Your task to perform on an android device: find which apps use the phone's location Image 0: 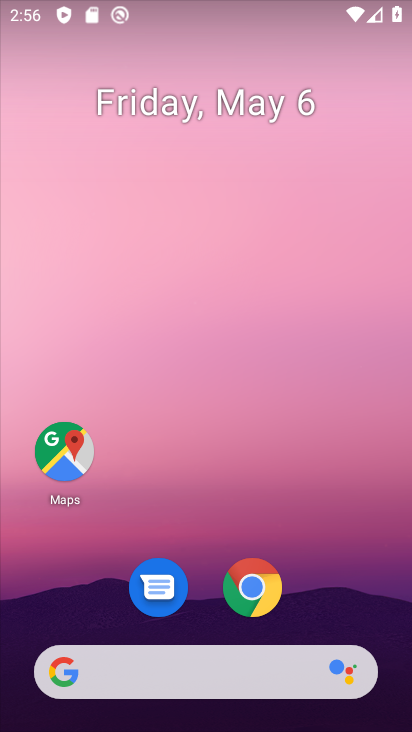
Step 0: drag from (317, 515) to (319, 58)
Your task to perform on an android device: find which apps use the phone's location Image 1: 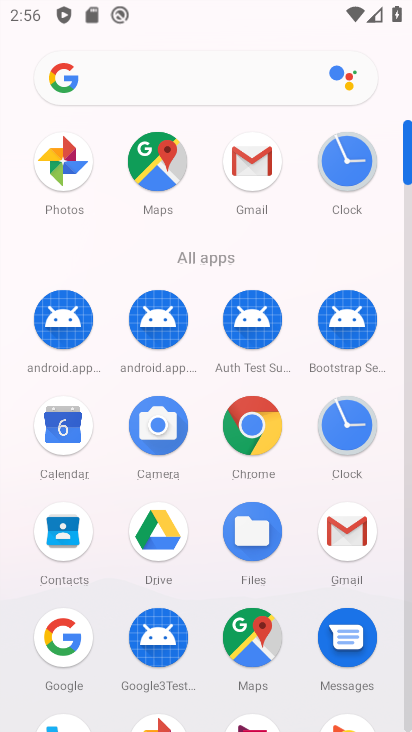
Step 1: drag from (204, 485) to (217, 136)
Your task to perform on an android device: find which apps use the phone's location Image 2: 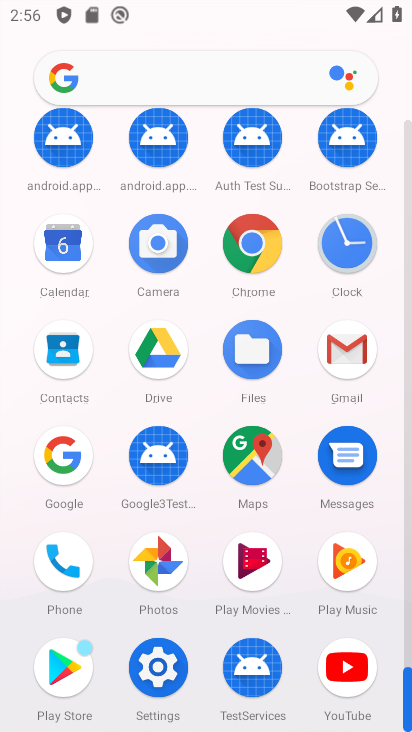
Step 2: click (157, 654)
Your task to perform on an android device: find which apps use the phone's location Image 3: 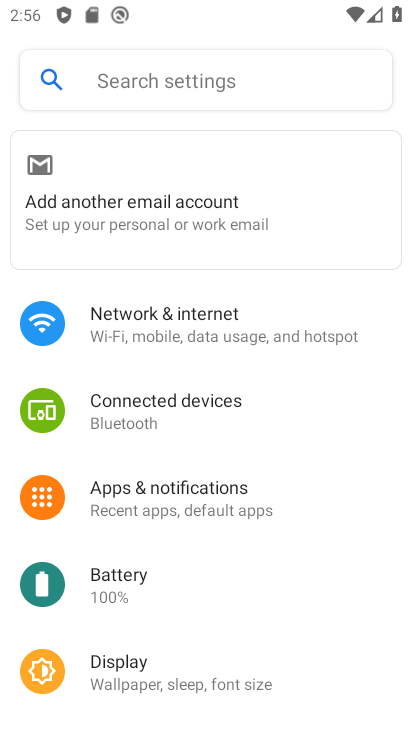
Step 3: drag from (189, 603) to (232, 160)
Your task to perform on an android device: find which apps use the phone's location Image 4: 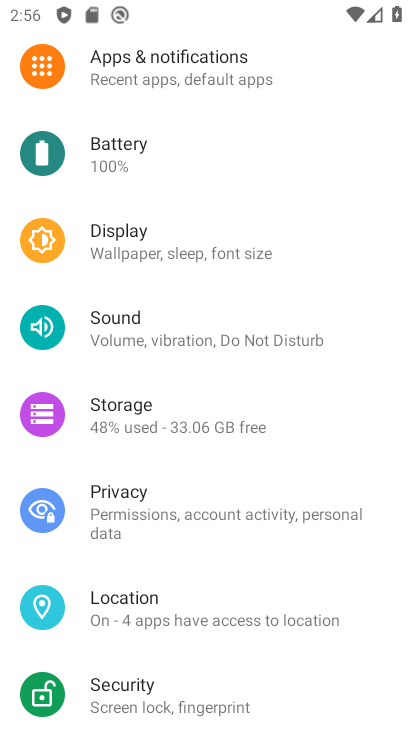
Step 4: click (203, 604)
Your task to perform on an android device: find which apps use the phone's location Image 5: 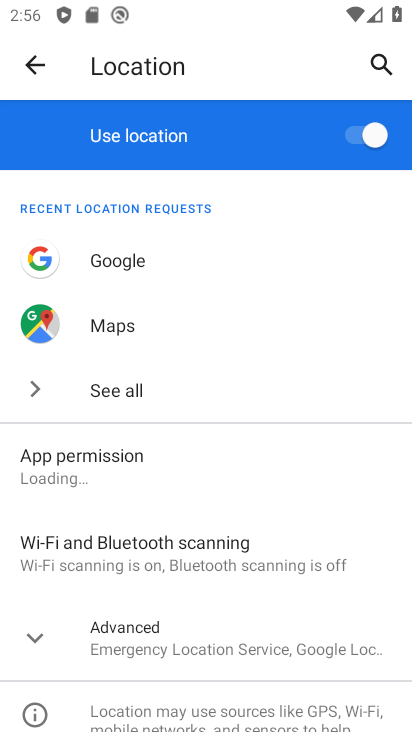
Step 5: click (144, 472)
Your task to perform on an android device: find which apps use the phone's location Image 6: 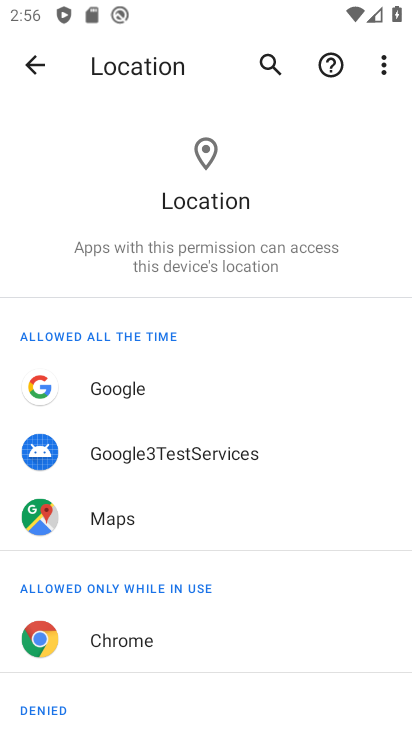
Step 6: task complete